Your task to perform on an android device: Go to Google maps Image 0: 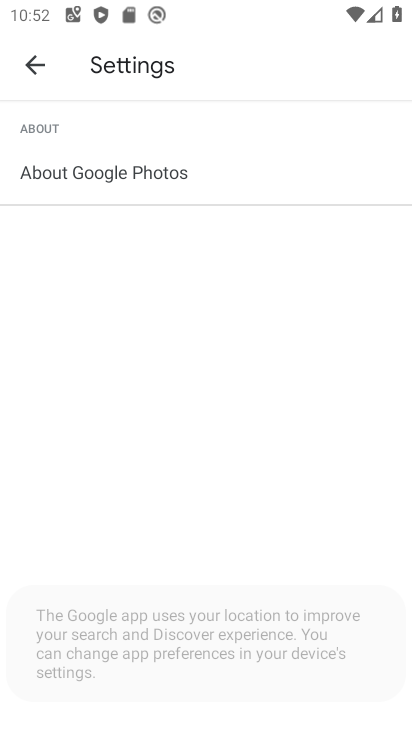
Step 0: press home button
Your task to perform on an android device: Go to Google maps Image 1: 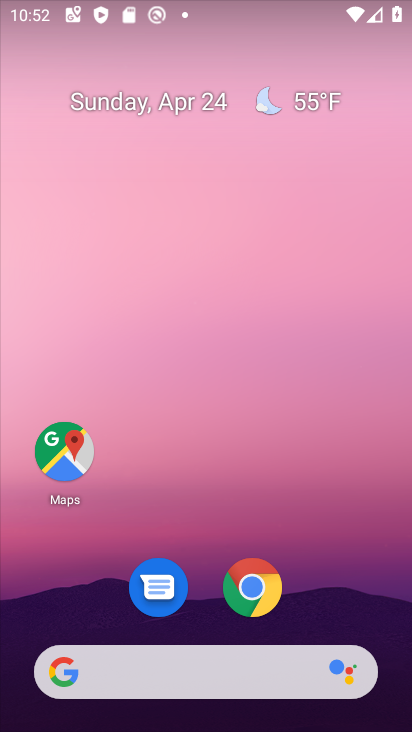
Step 1: drag from (329, 581) to (248, 88)
Your task to perform on an android device: Go to Google maps Image 2: 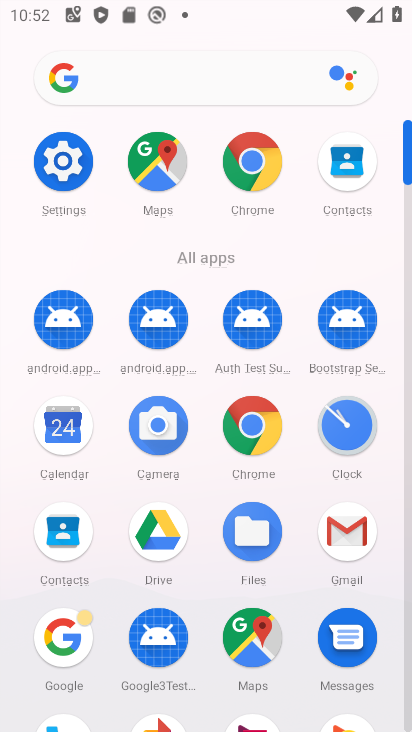
Step 2: click (245, 651)
Your task to perform on an android device: Go to Google maps Image 3: 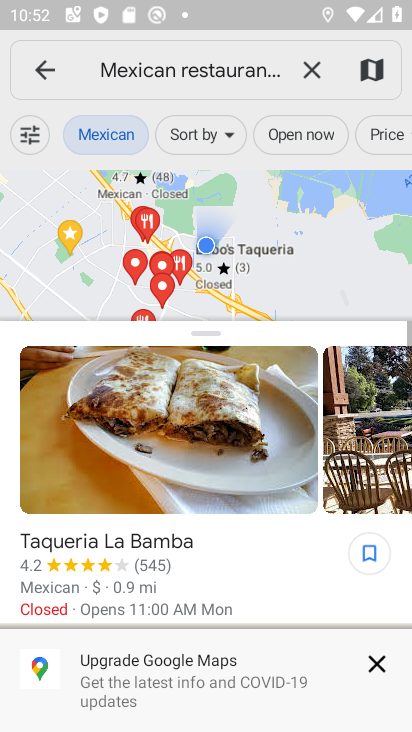
Step 3: task complete